Your task to perform on an android device: Add acer nitro to the cart on bestbuy Image 0: 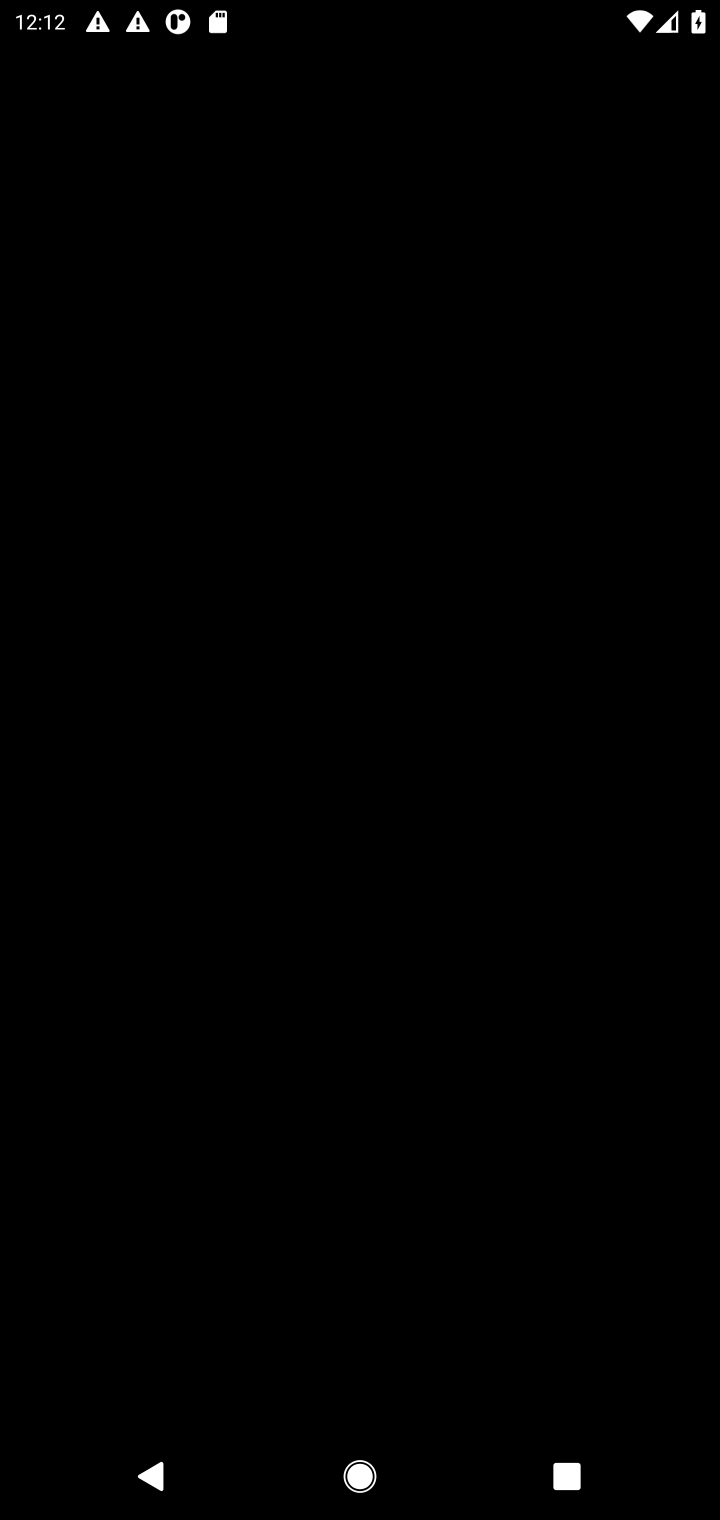
Step 0: press home button
Your task to perform on an android device: Add acer nitro to the cart on bestbuy Image 1: 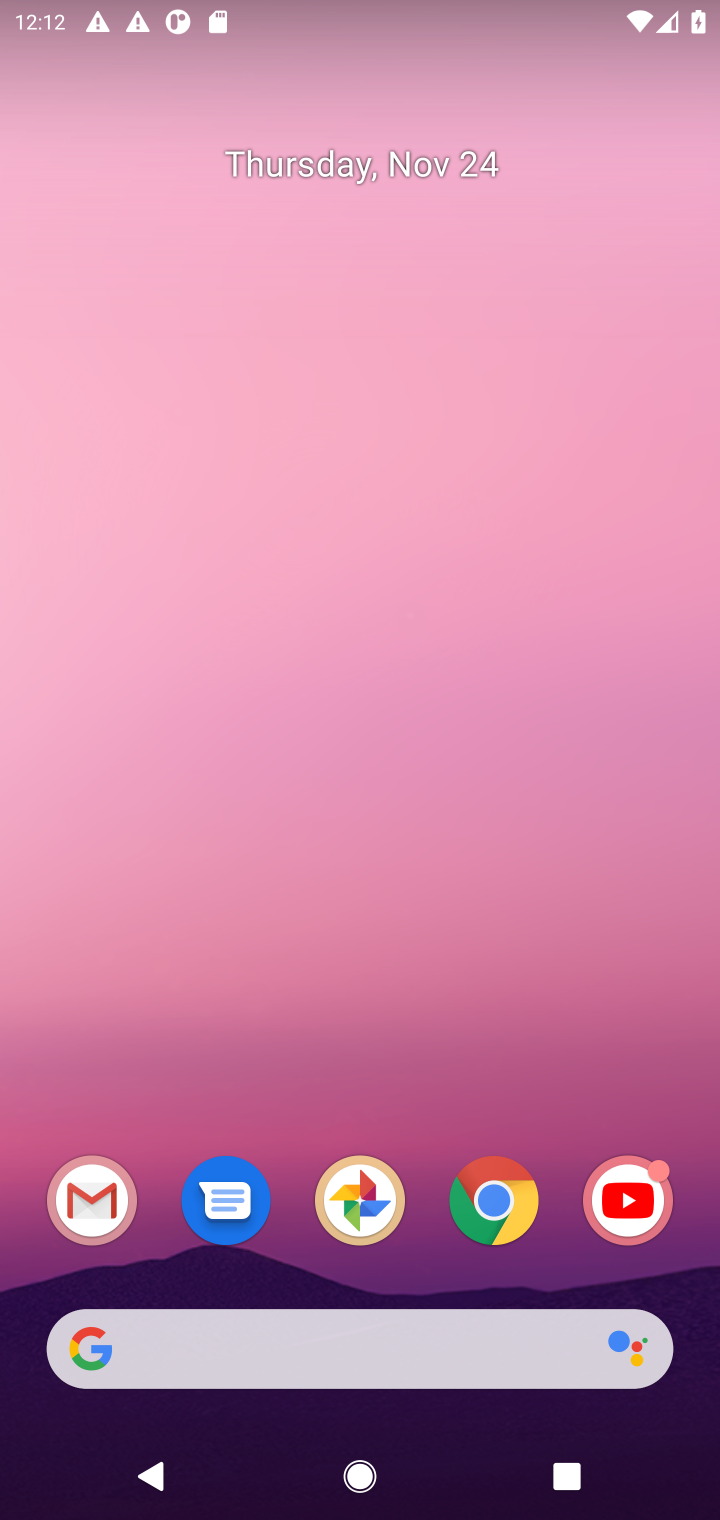
Step 1: click (323, 1373)
Your task to perform on an android device: Add acer nitro to the cart on bestbuy Image 2: 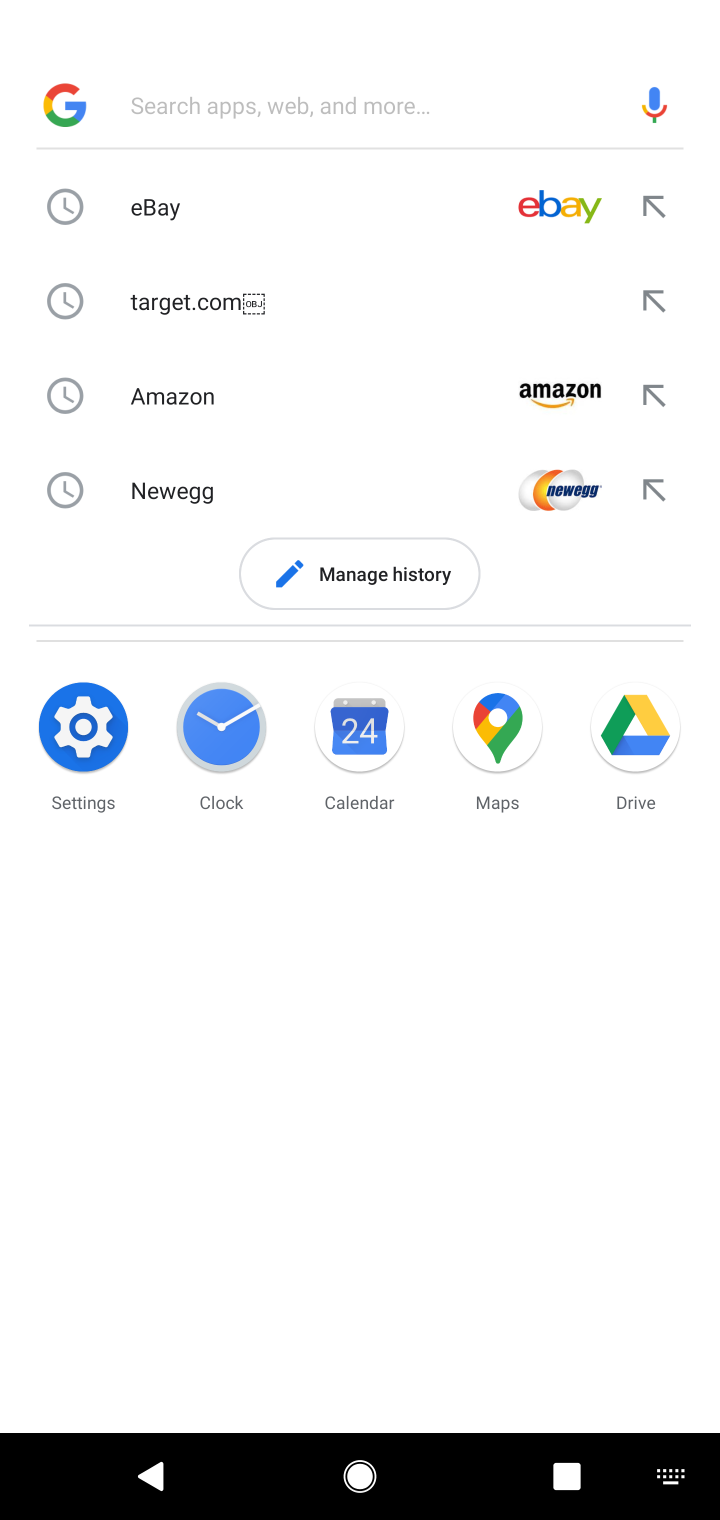
Step 2: type "bestbuy"
Your task to perform on an android device: Add acer nitro to the cart on bestbuy Image 3: 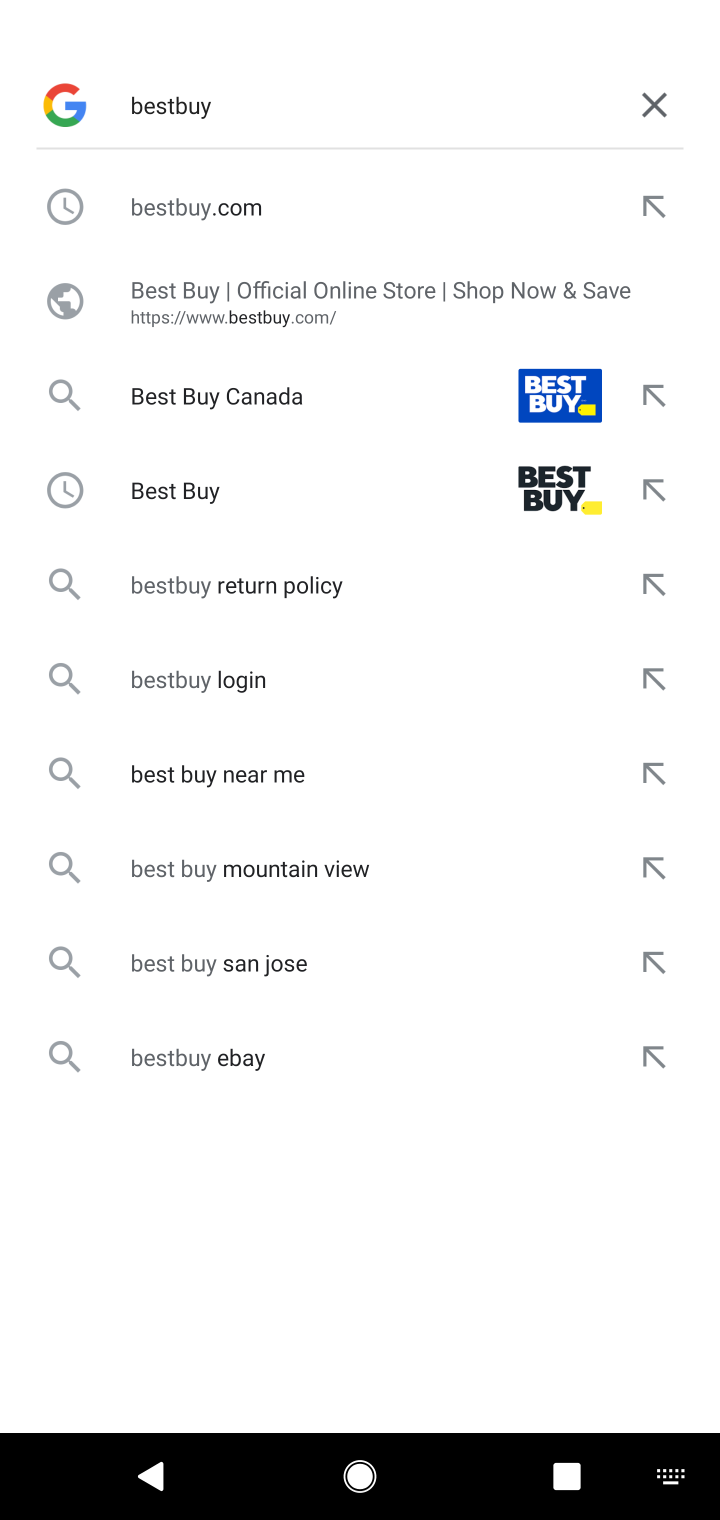
Step 3: click (363, 486)
Your task to perform on an android device: Add acer nitro to the cart on bestbuy Image 4: 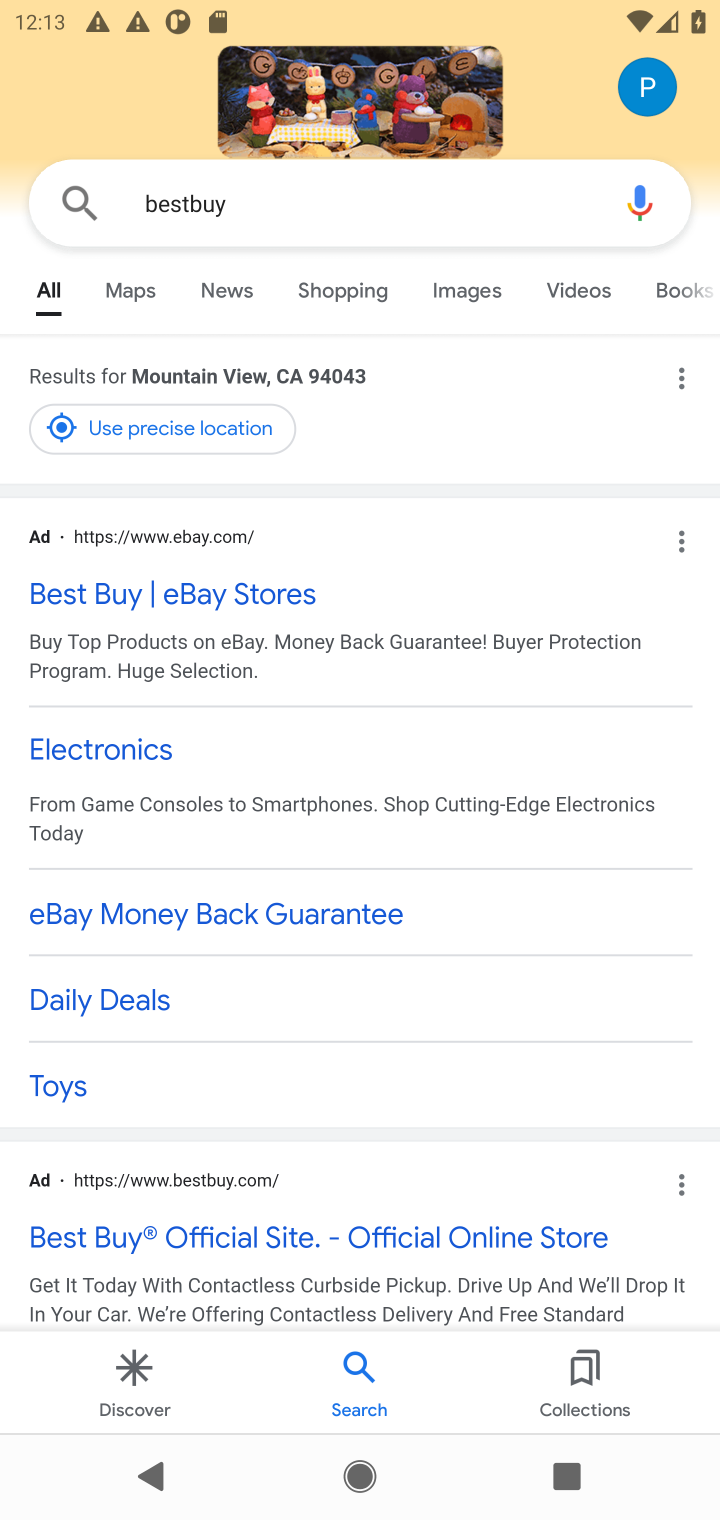
Step 4: click (63, 614)
Your task to perform on an android device: Add acer nitro to the cart on bestbuy Image 5: 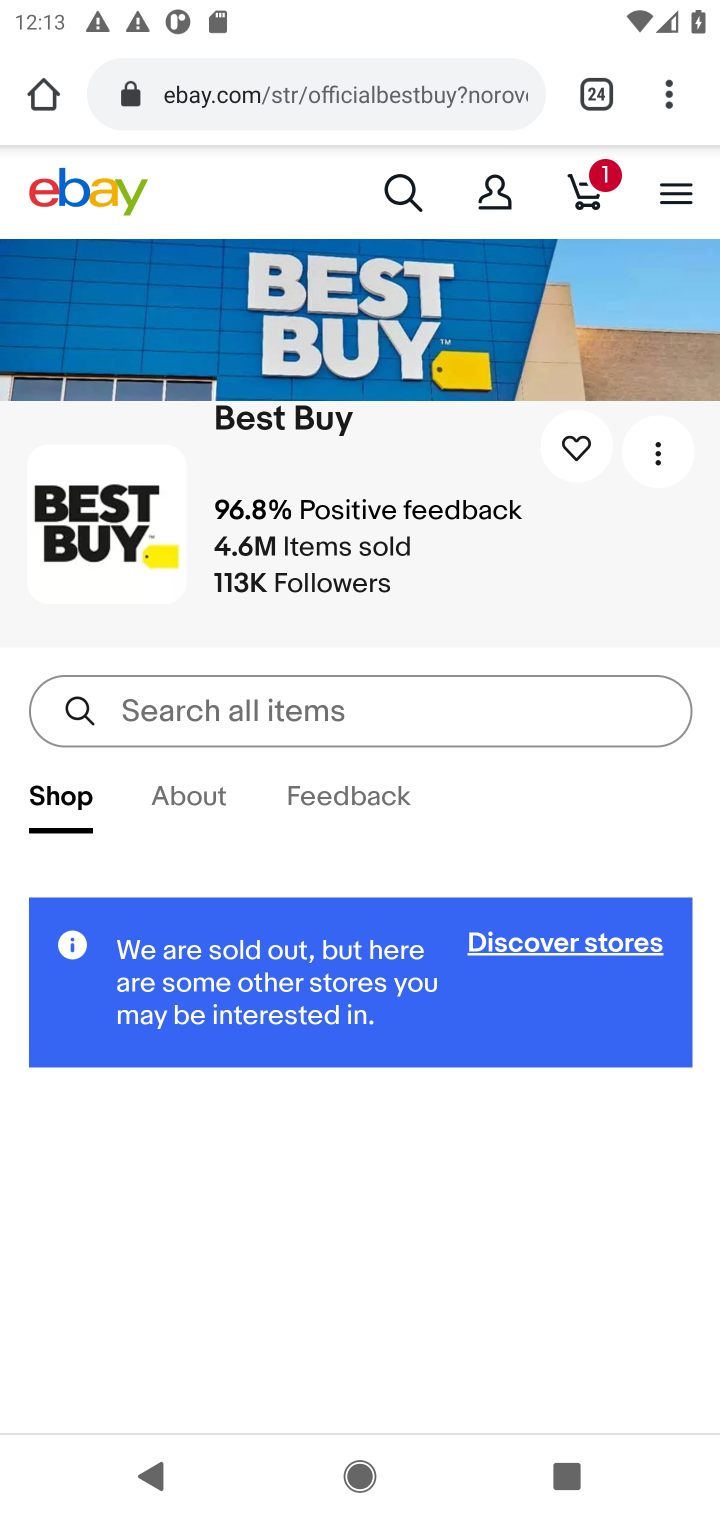
Step 5: click (509, 725)
Your task to perform on an android device: Add acer nitro to the cart on bestbuy Image 6: 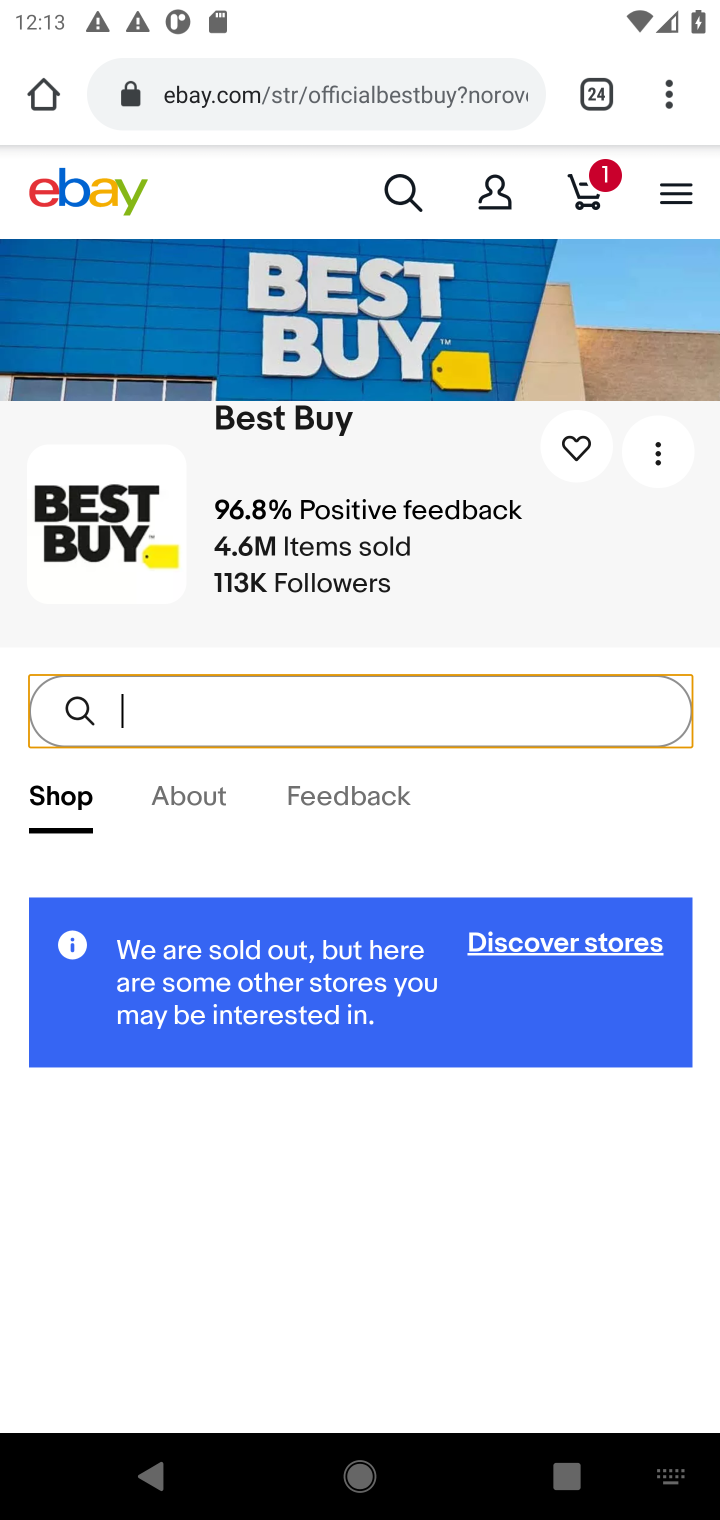
Step 6: type " acer nitro"
Your task to perform on an android device: Add acer nitro to the cart on bestbuy Image 7: 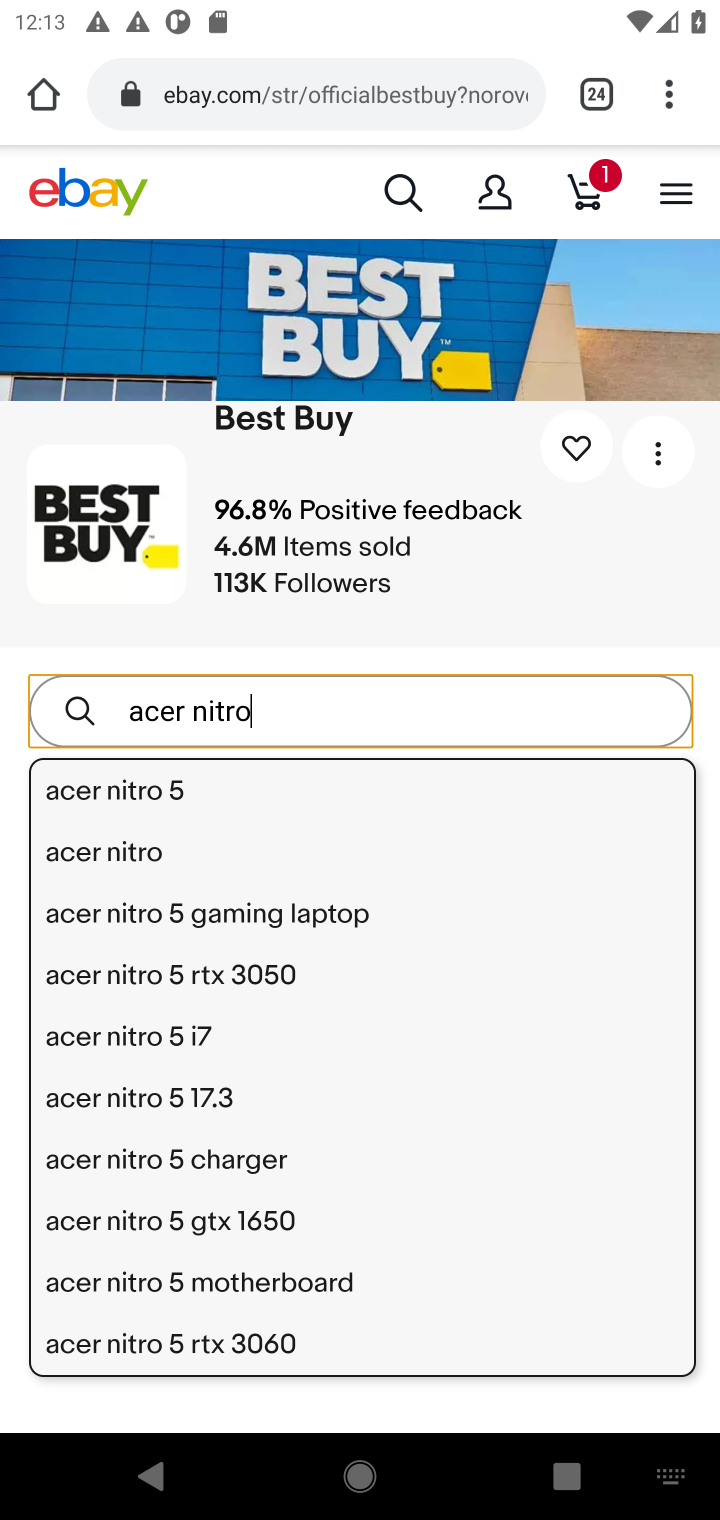
Step 7: click (138, 847)
Your task to perform on an android device: Add acer nitro to the cart on bestbuy Image 8: 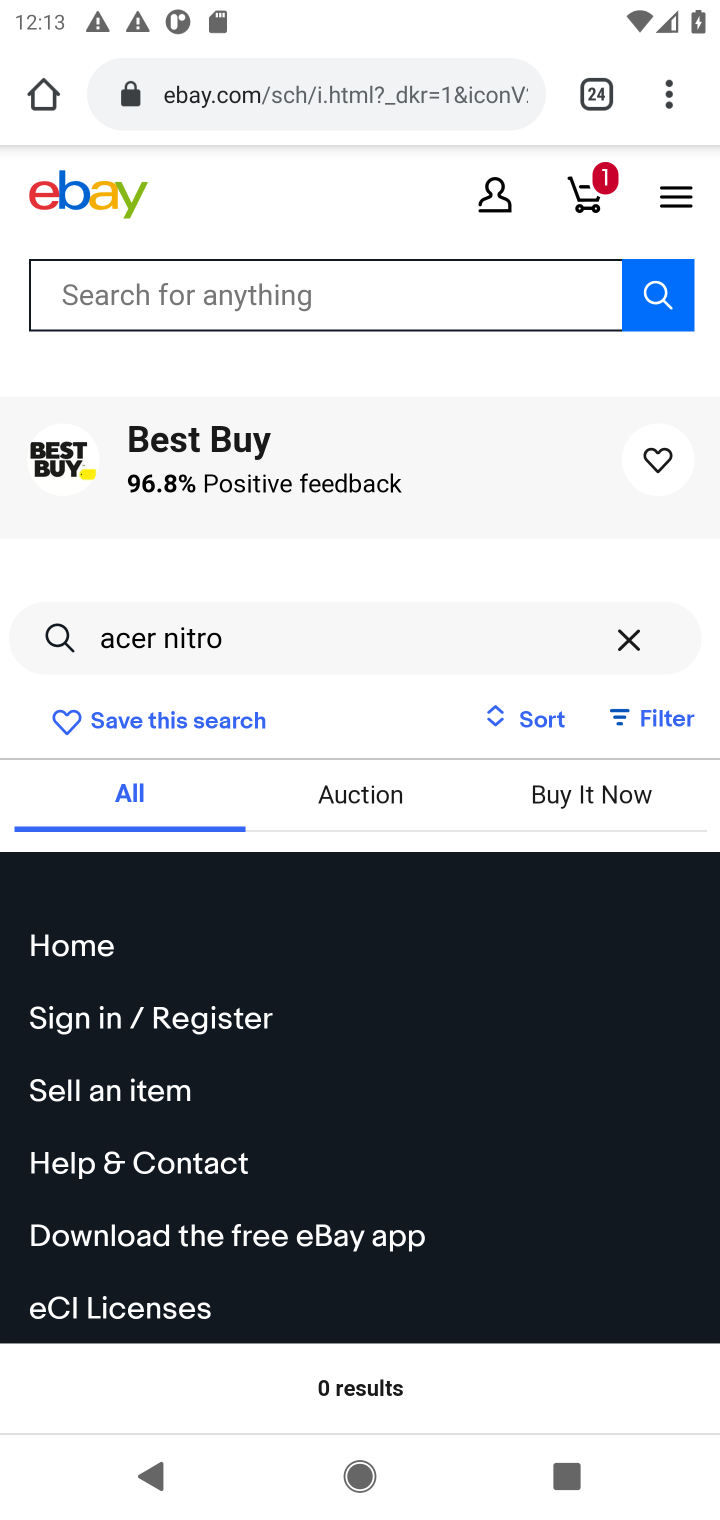
Step 8: task complete